Your task to perform on an android device: open the mobile data screen to see how much data has been used Image 0: 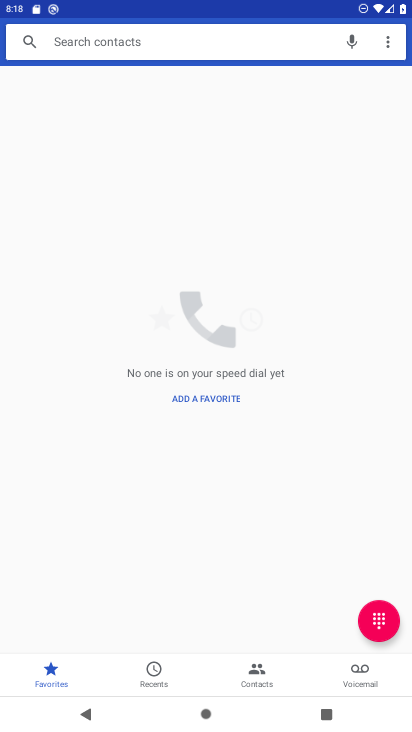
Step 0: drag from (376, 10) to (329, 608)
Your task to perform on an android device: open the mobile data screen to see how much data has been used Image 1: 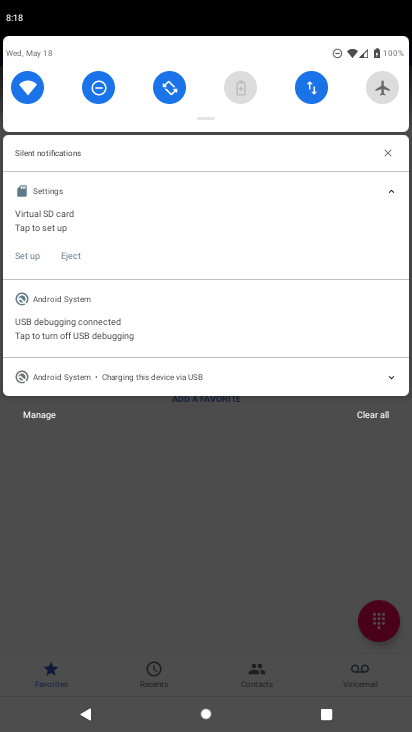
Step 1: click (319, 86)
Your task to perform on an android device: open the mobile data screen to see how much data has been used Image 2: 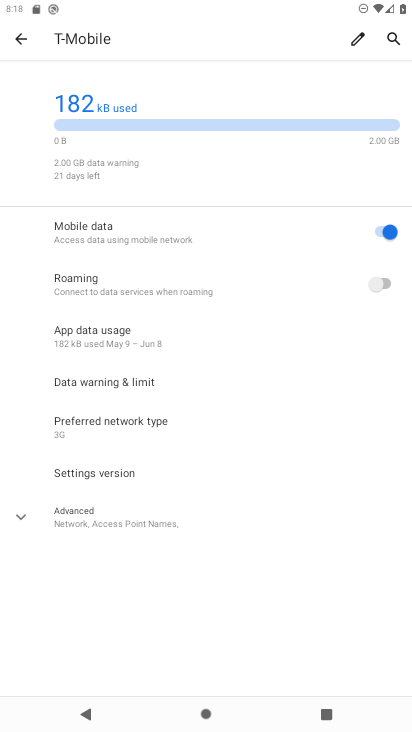
Step 2: task complete